Your task to perform on an android device: move a message to another label in the gmail app Image 0: 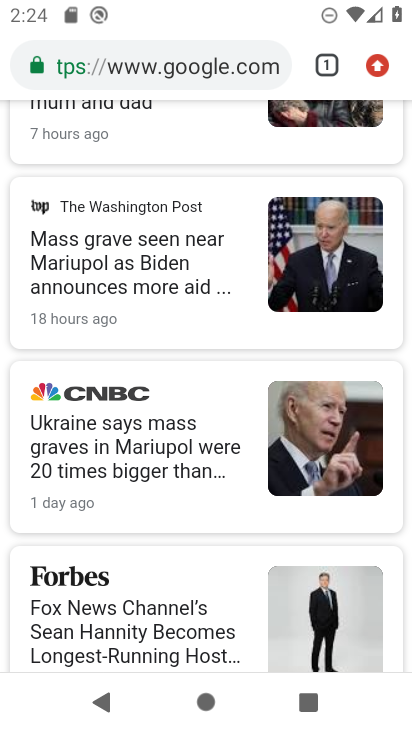
Step 0: press home button
Your task to perform on an android device: move a message to another label in the gmail app Image 1: 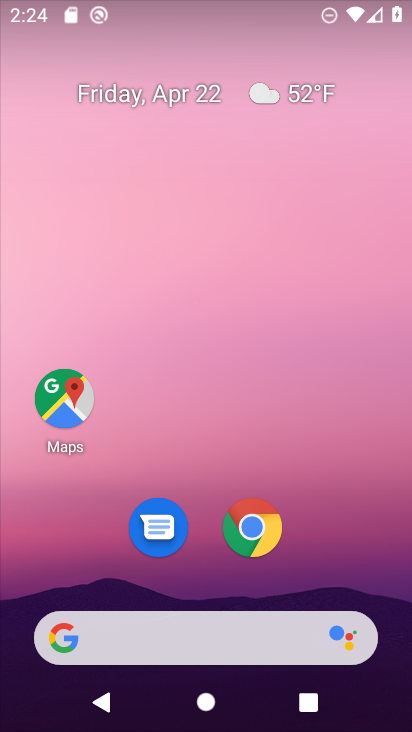
Step 1: drag from (329, 551) to (348, 36)
Your task to perform on an android device: move a message to another label in the gmail app Image 2: 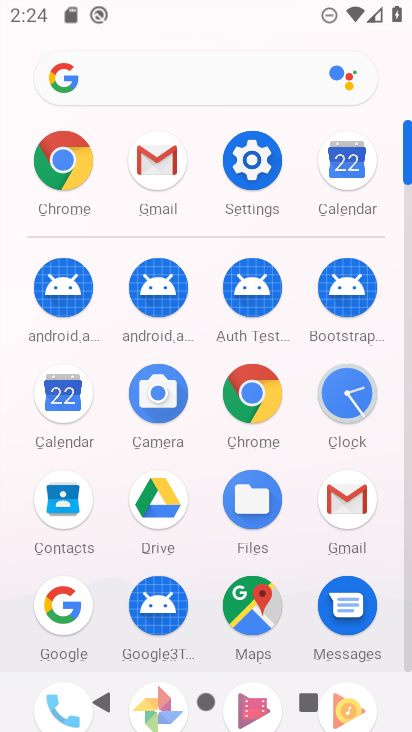
Step 2: click (342, 503)
Your task to perform on an android device: move a message to another label in the gmail app Image 3: 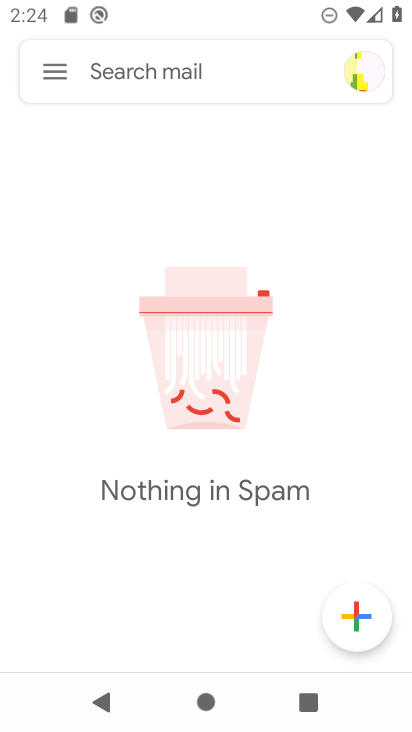
Step 3: click (49, 70)
Your task to perform on an android device: move a message to another label in the gmail app Image 4: 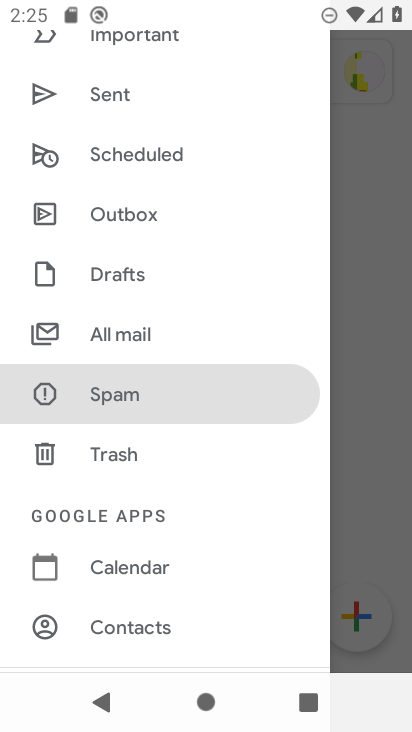
Step 4: drag from (255, 321) to (244, 544)
Your task to perform on an android device: move a message to another label in the gmail app Image 5: 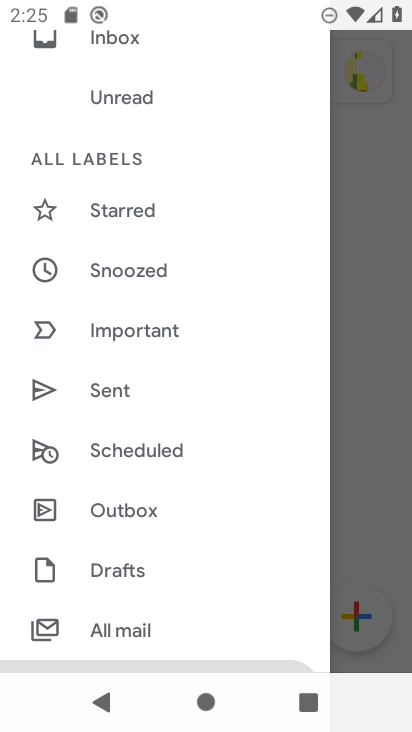
Step 5: click (131, 38)
Your task to perform on an android device: move a message to another label in the gmail app Image 6: 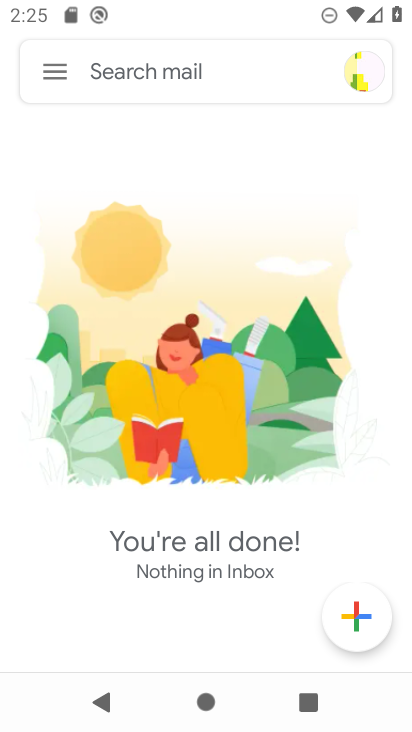
Step 6: task complete